Your task to perform on an android device: stop showing notifications on the lock screen Image 0: 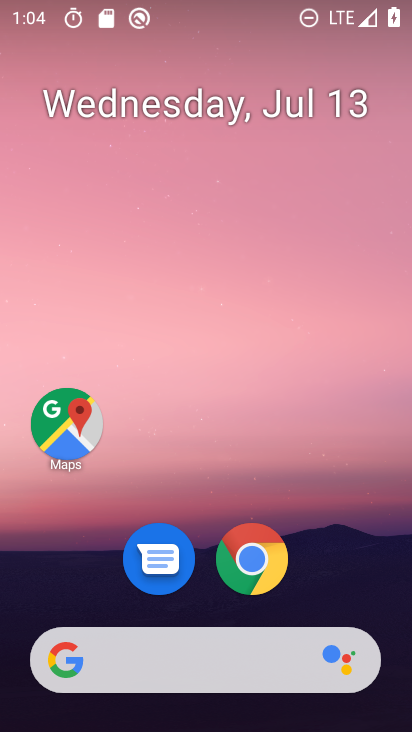
Step 0: drag from (201, 625) to (276, 267)
Your task to perform on an android device: stop showing notifications on the lock screen Image 1: 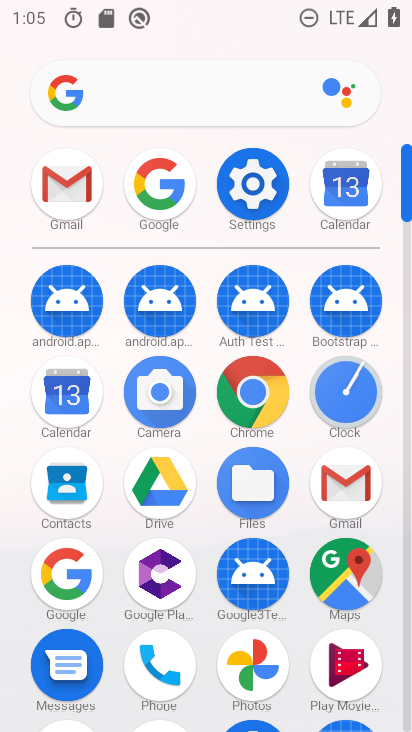
Step 1: click (263, 203)
Your task to perform on an android device: stop showing notifications on the lock screen Image 2: 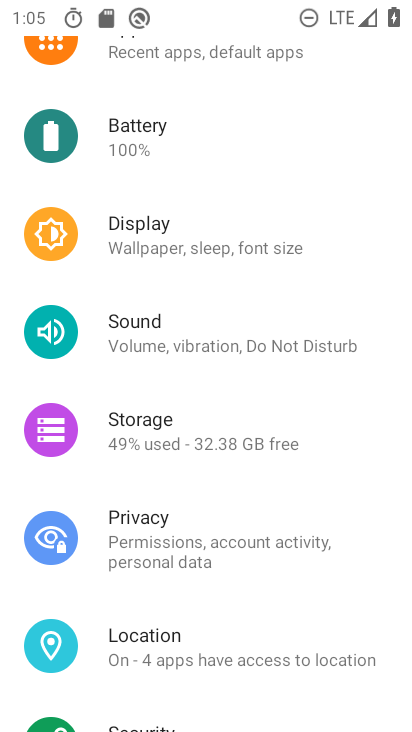
Step 2: drag from (182, 300) to (149, 614)
Your task to perform on an android device: stop showing notifications on the lock screen Image 3: 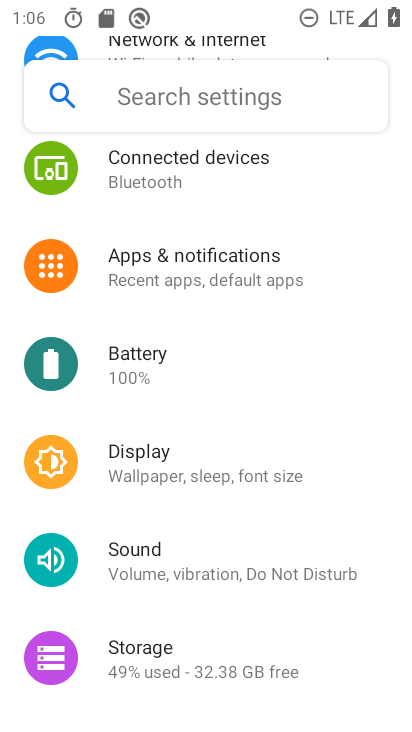
Step 3: click (227, 282)
Your task to perform on an android device: stop showing notifications on the lock screen Image 4: 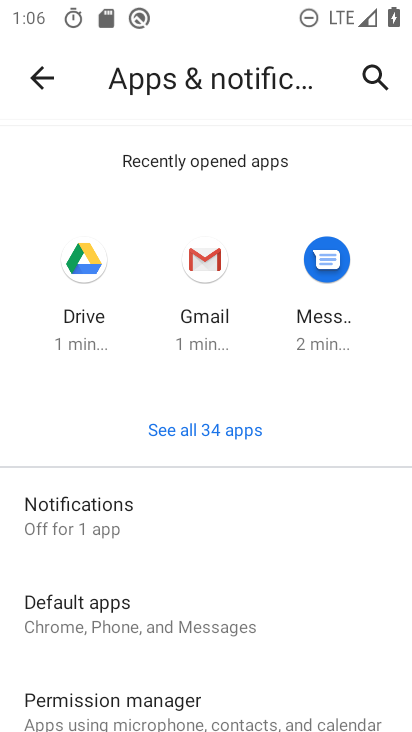
Step 4: click (159, 516)
Your task to perform on an android device: stop showing notifications on the lock screen Image 5: 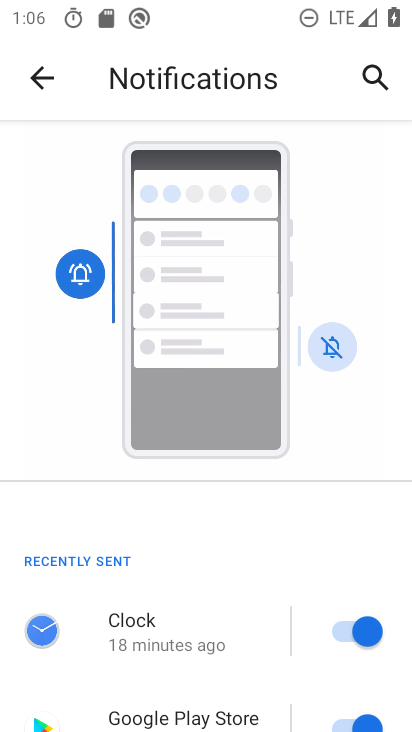
Step 5: drag from (142, 617) to (262, 286)
Your task to perform on an android device: stop showing notifications on the lock screen Image 6: 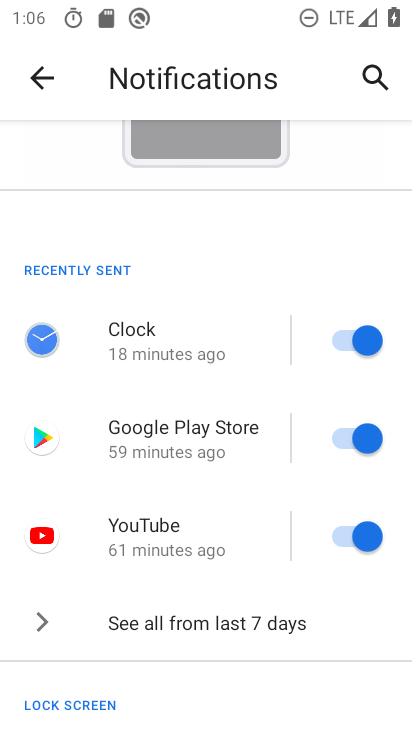
Step 6: drag from (195, 593) to (261, 335)
Your task to perform on an android device: stop showing notifications on the lock screen Image 7: 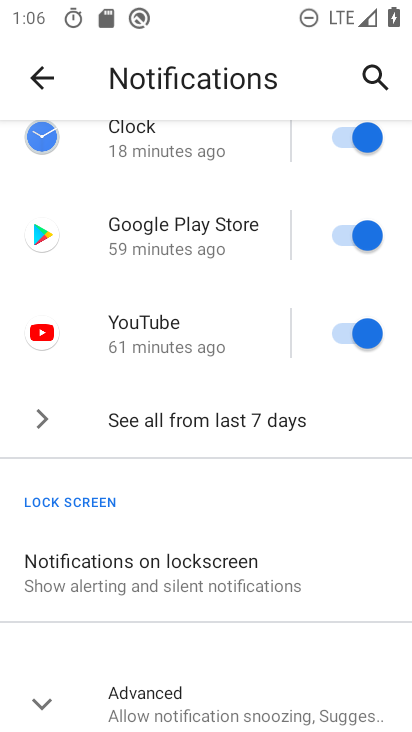
Step 7: click (205, 579)
Your task to perform on an android device: stop showing notifications on the lock screen Image 8: 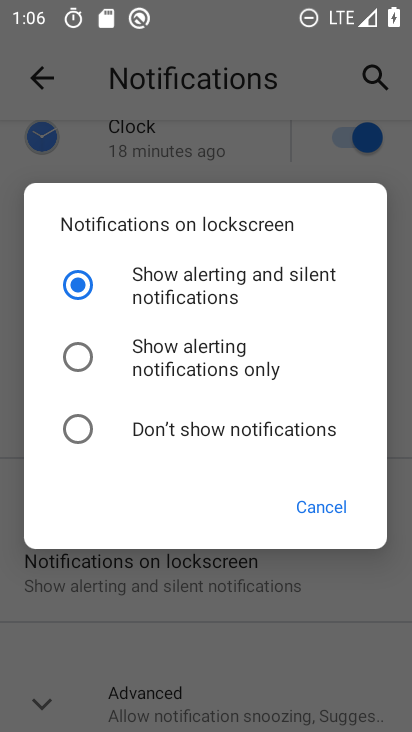
Step 8: click (186, 450)
Your task to perform on an android device: stop showing notifications on the lock screen Image 9: 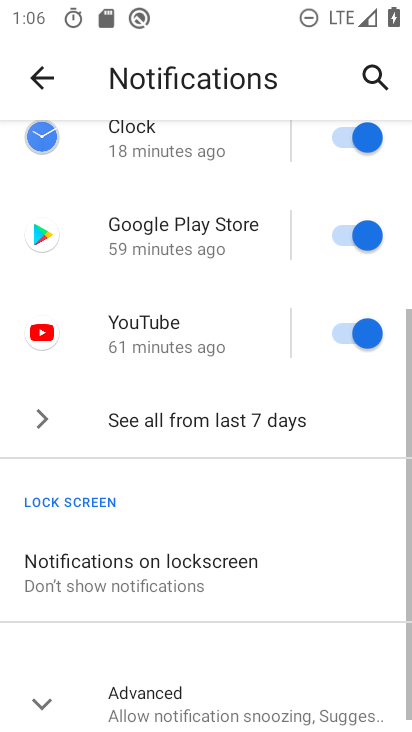
Step 9: task complete